Your task to perform on an android device: What's the weather going to be this weekend? Image 0: 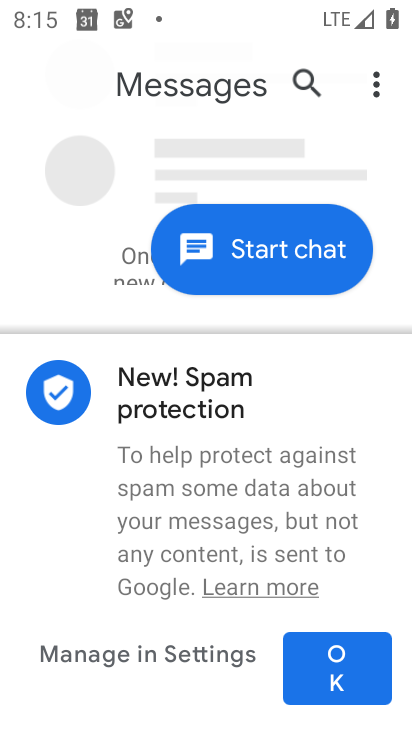
Step 0: press home button
Your task to perform on an android device: What's the weather going to be this weekend? Image 1: 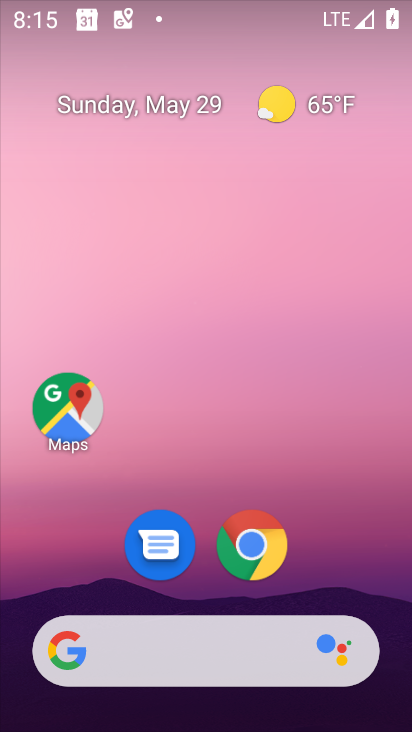
Step 1: click (256, 541)
Your task to perform on an android device: What's the weather going to be this weekend? Image 2: 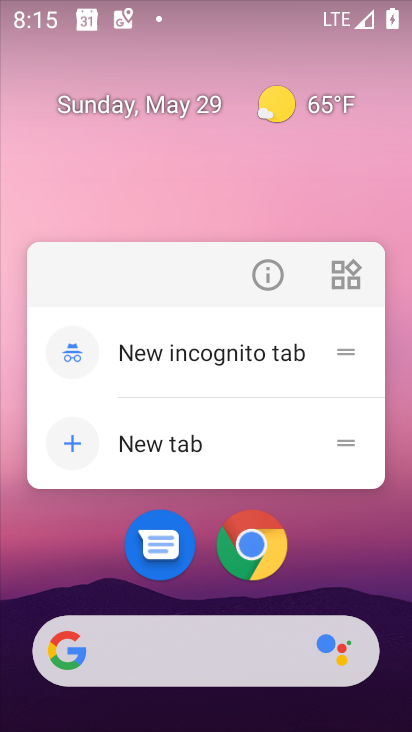
Step 2: click (261, 541)
Your task to perform on an android device: What's the weather going to be this weekend? Image 3: 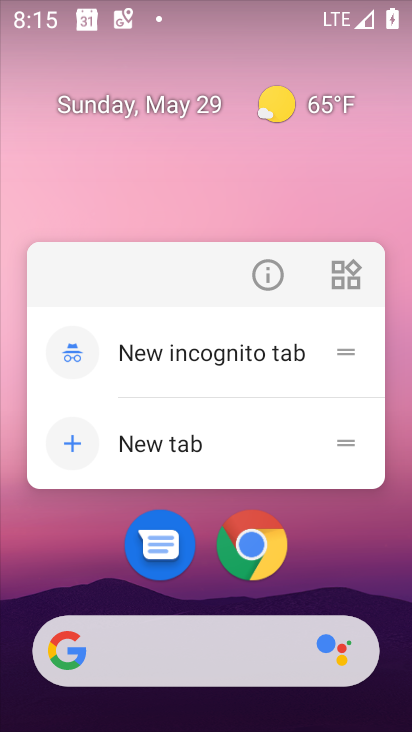
Step 3: click (252, 547)
Your task to perform on an android device: What's the weather going to be this weekend? Image 4: 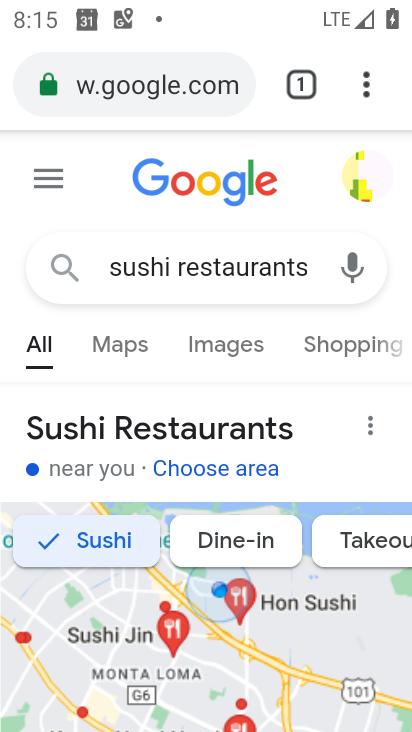
Step 4: click (189, 89)
Your task to perform on an android device: What's the weather going to be this weekend? Image 5: 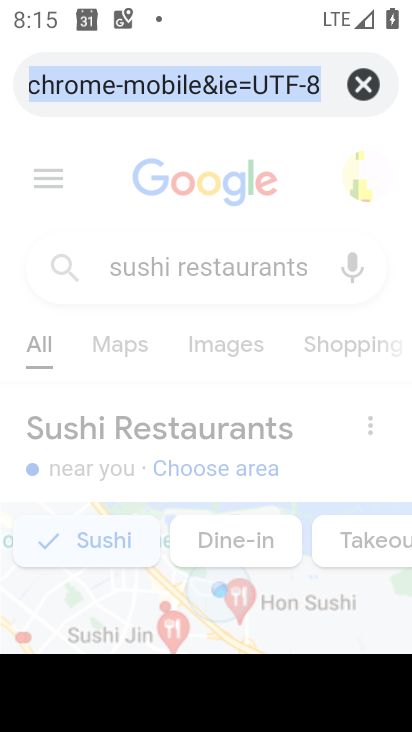
Step 5: type "What's the weather going to be this weekend?"
Your task to perform on an android device: What's the weather going to be this weekend? Image 6: 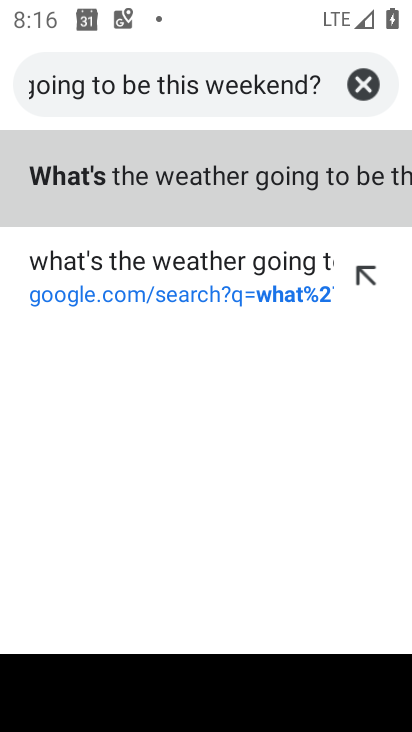
Step 6: click (260, 180)
Your task to perform on an android device: What's the weather going to be this weekend? Image 7: 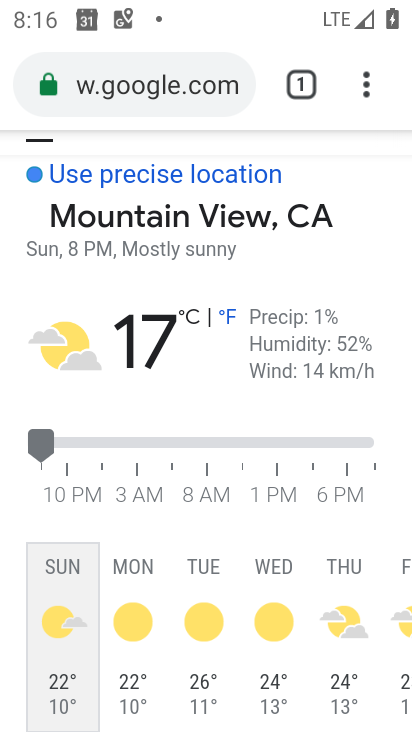
Step 7: task complete